Your task to perform on an android device: change notification settings in the gmail app Image 0: 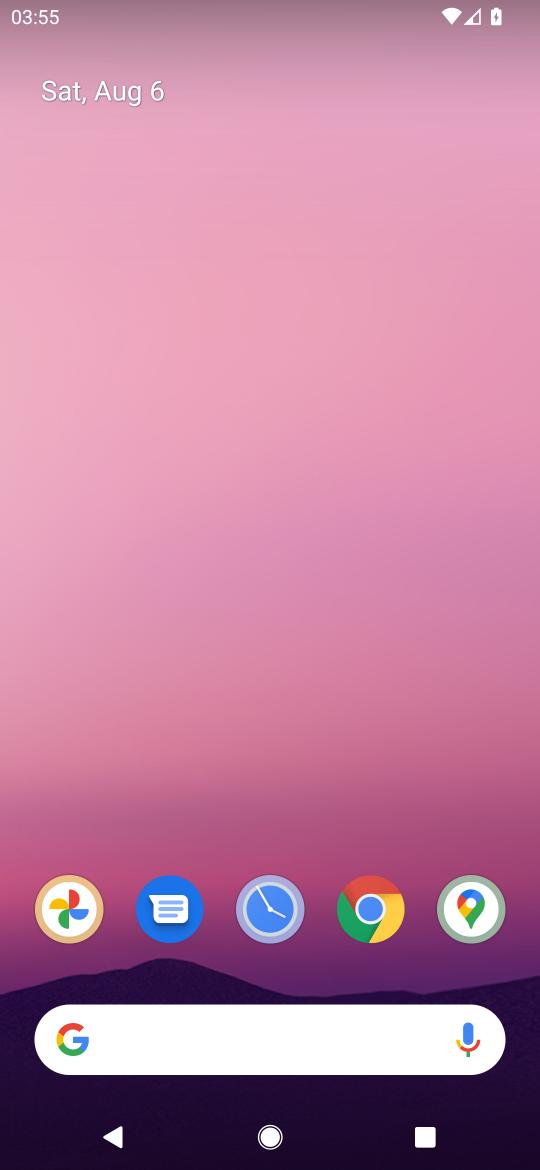
Step 0: drag from (282, 984) to (461, 115)
Your task to perform on an android device: change notification settings in the gmail app Image 1: 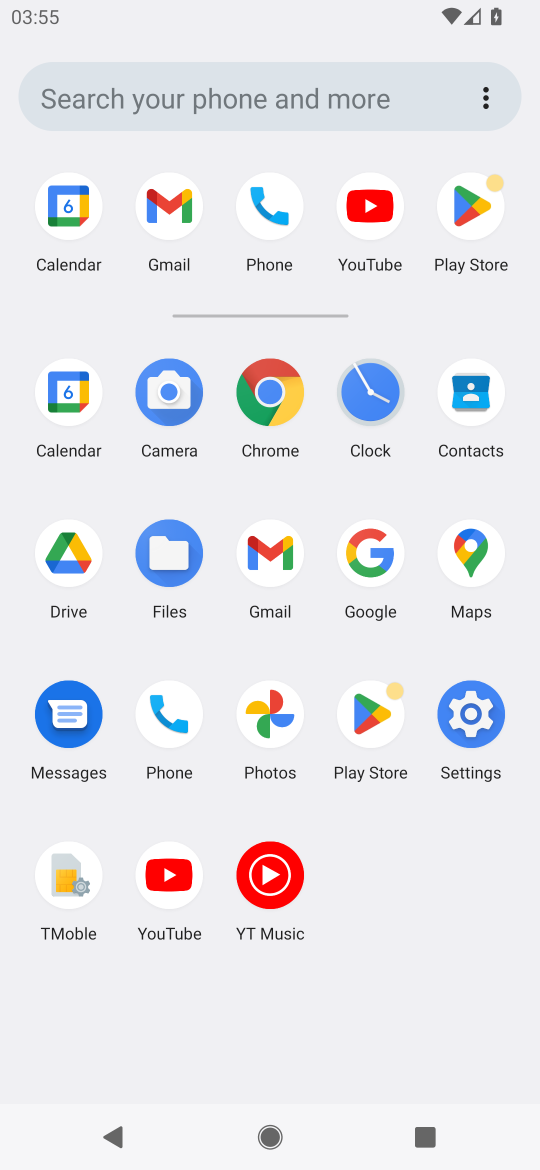
Step 1: click (148, 214)
Your task to perform on an android device: change notification settings in the gmail app Image 2: 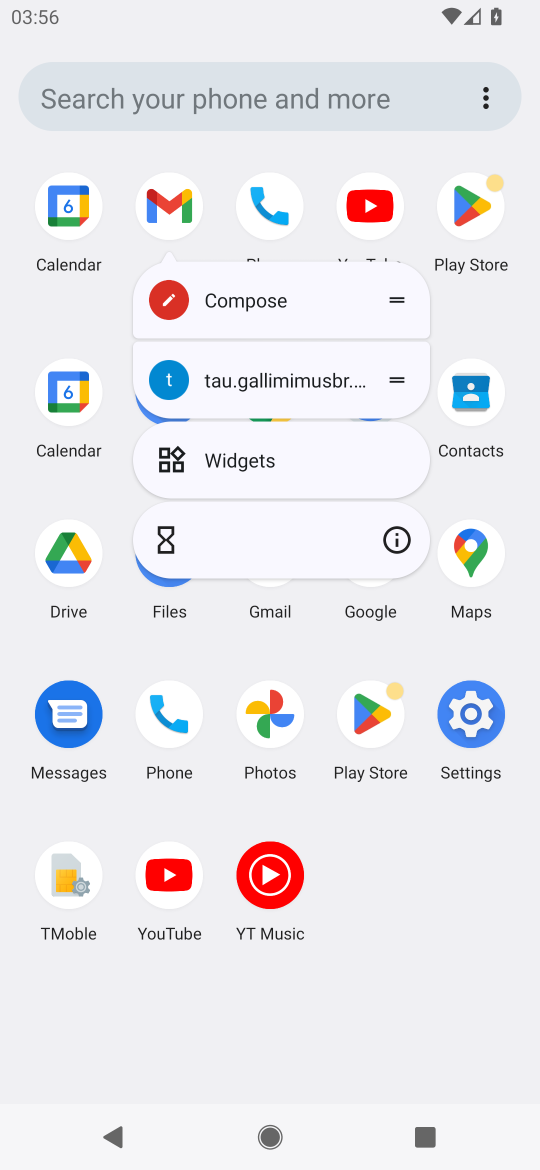
Step 2: click (398, 534)
Your task to perform on an android device: change notification settings in the gmail app Image 3: 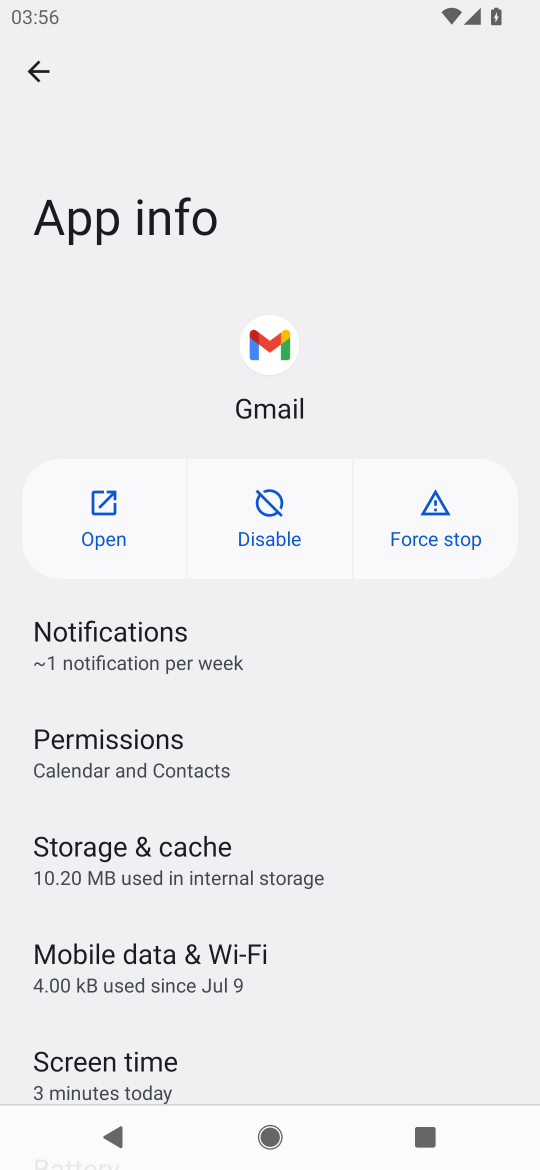
Step 3: click (180, 658)
Your task to perform on an android device: change notification settings in the gmail app Image 4: 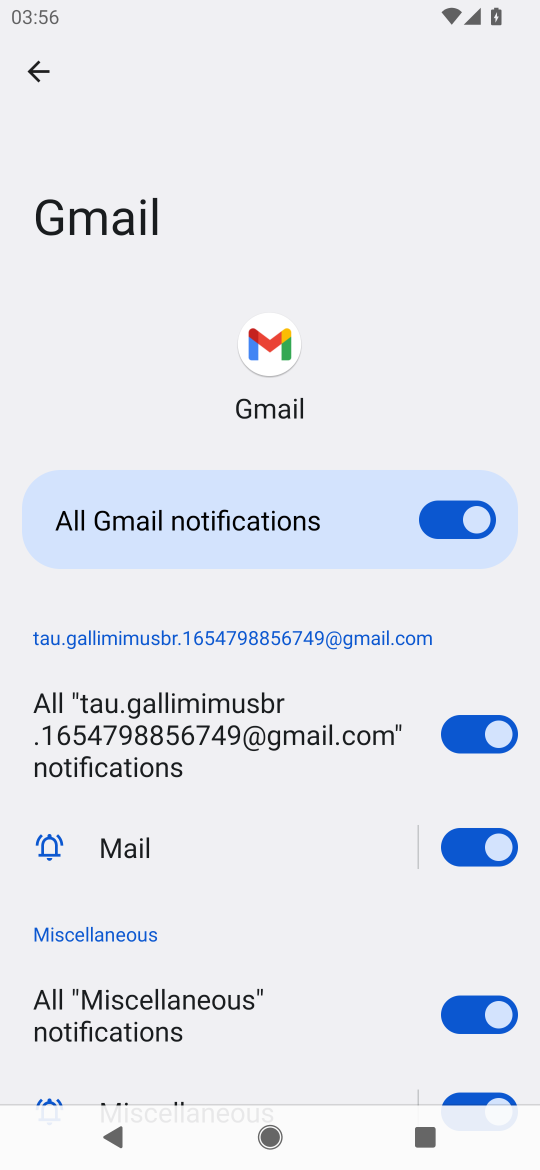
Step 4: click (506, 844)
Your task to perform on an android device: change notification settings in the gmail app Image 5: 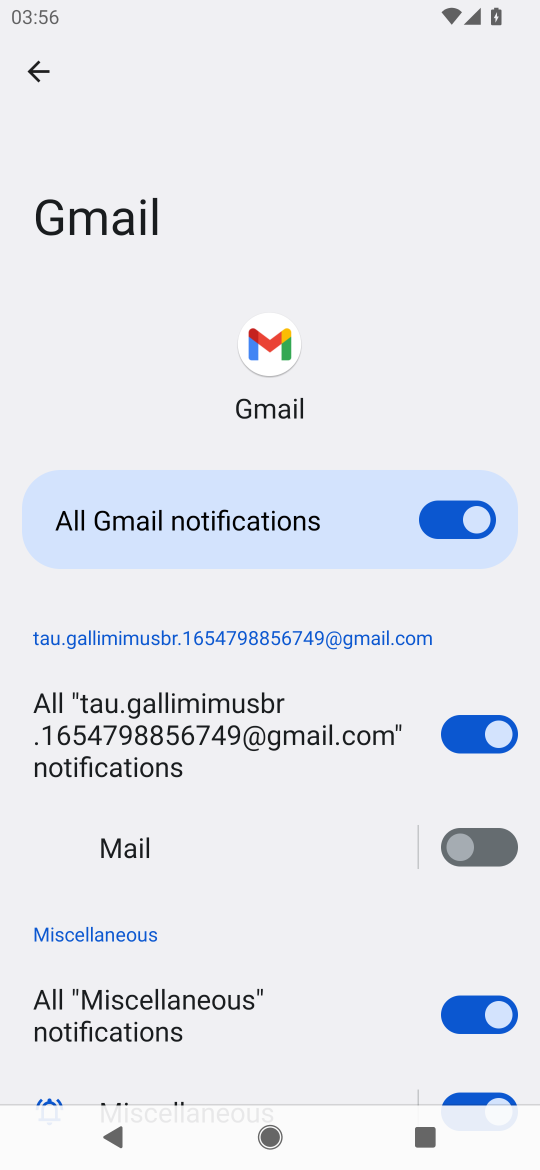
Step 5: task complete